Your task to perform on an android device: Search for seafood restaurants on Google Maps Image 0: 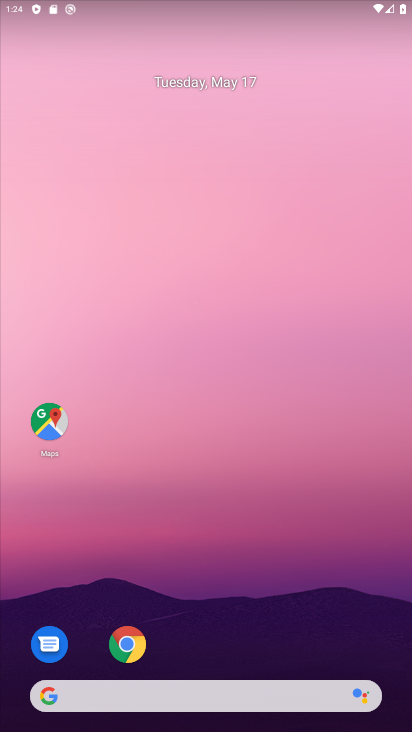
Step 0: click (54, 437)
Your task to perform on an android device: Search for seafood restaurants on Google Maps Image 1: 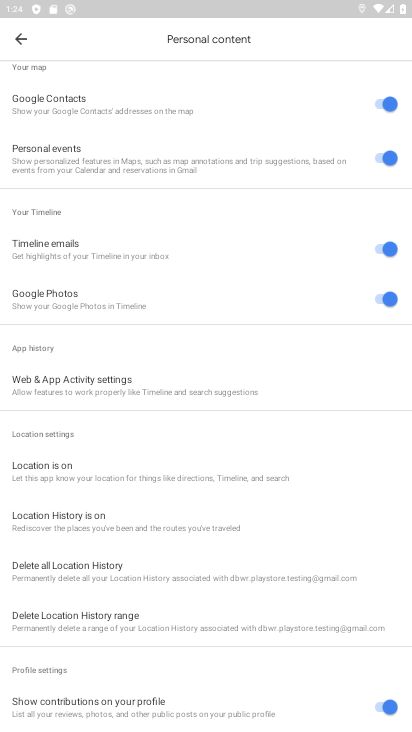
Step 1: press home button
Your task to perform on an android device: Search for seafood restaurants on Google Maps Image 2: 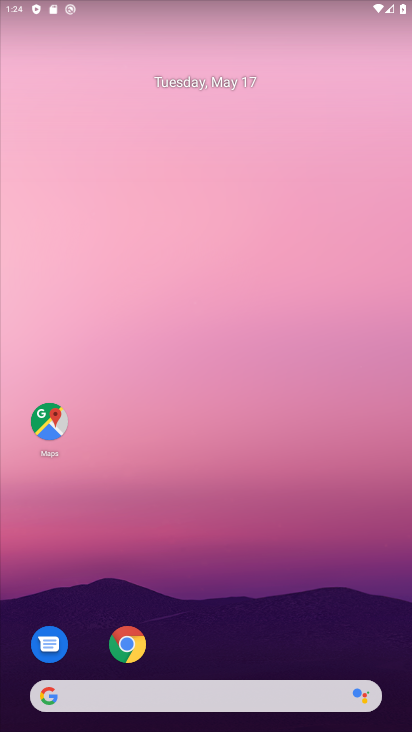
Step 2: click (47, 416)
Your task to perform on an android device: Search for seafood restaurants on Google Maps Image 3: 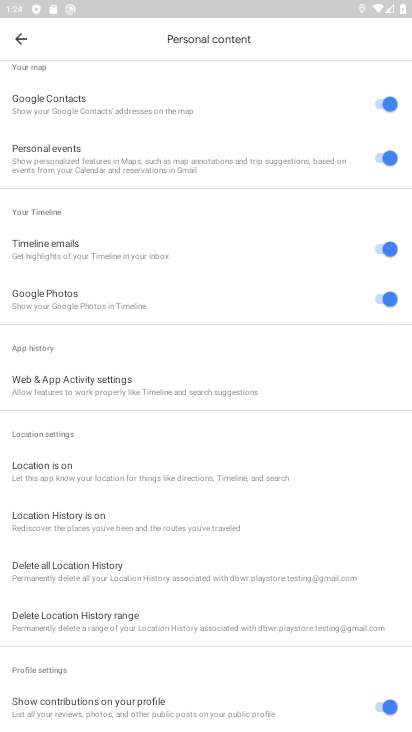
Step 3: click (17, 36)
Your task to perform on an android device: Search for seafood restaurants on Google Maps Image 4: 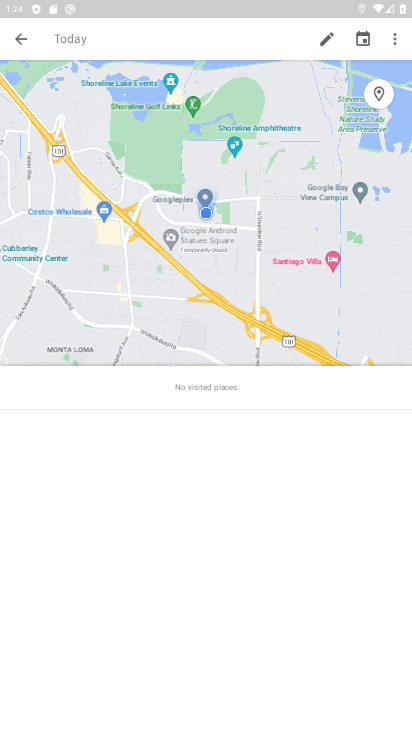
Step 4: click (18, 44)
Your task to perform on an android device: Search for seafood restaurants on Google Maps Image 5: 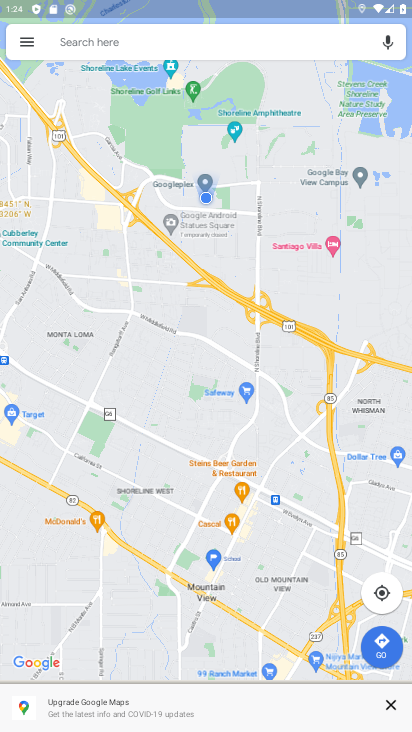
Step 5: click (139, 47)
Your task to perform on an android device: Search for seafood restaurants on Google Maps Image 6: 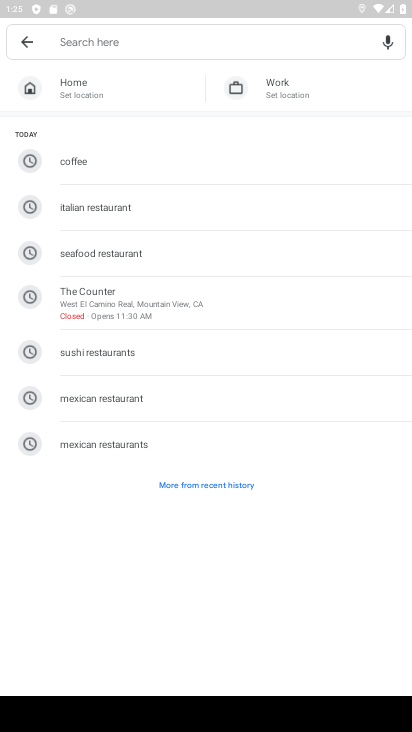
Step 6: click (106, 250)
Your task to perform on an android device: Search for seafood restaurants on Google Maps Image 7: 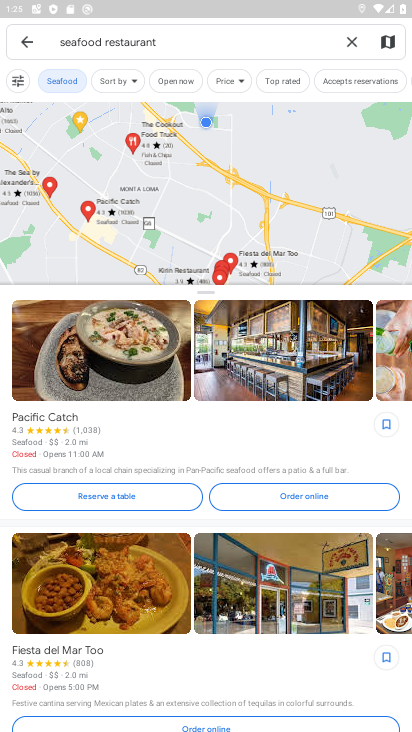
Step 7: task complete